Your task to perform on an android device: Show me the alarms in the clock app Image 0: 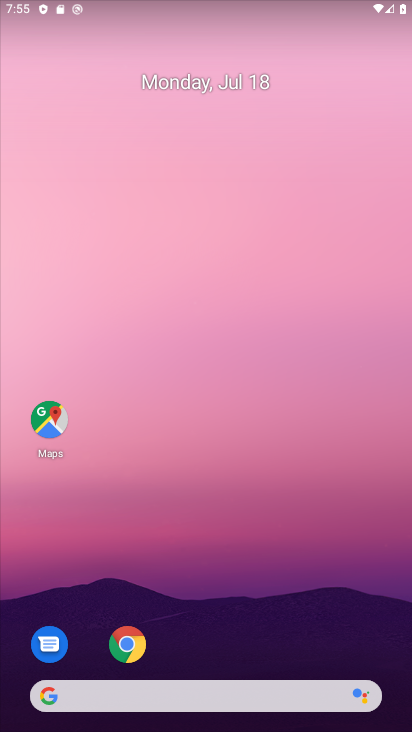
Step 0: drag from (206, 637) to (232, 96)
Your task to perform on an android device: Show me the alarms in the clock app Image 1: 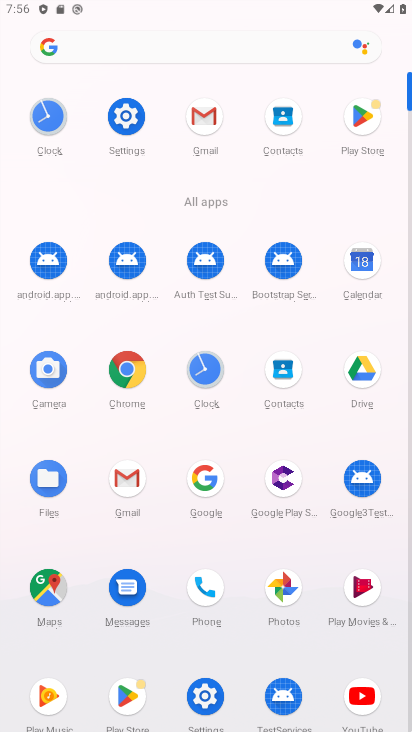
Step 1: click (203, 367)
Your task to perform on an android device: Show me the alarms in the clock app Image 2: 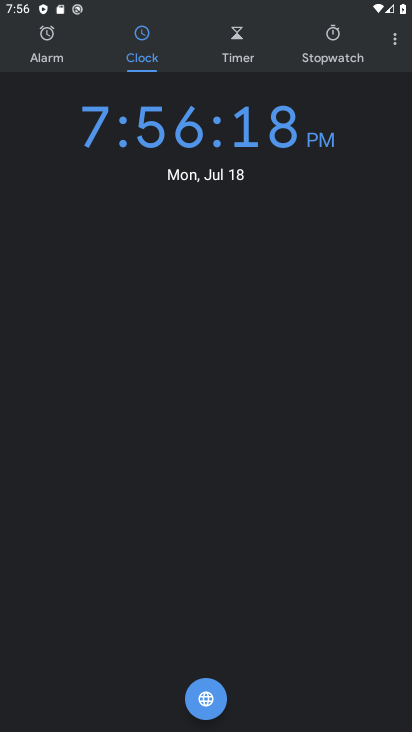
Step 2: click (46, 52)
Your task to perform on an android device: Show me the alarms in the clock app Image 3: 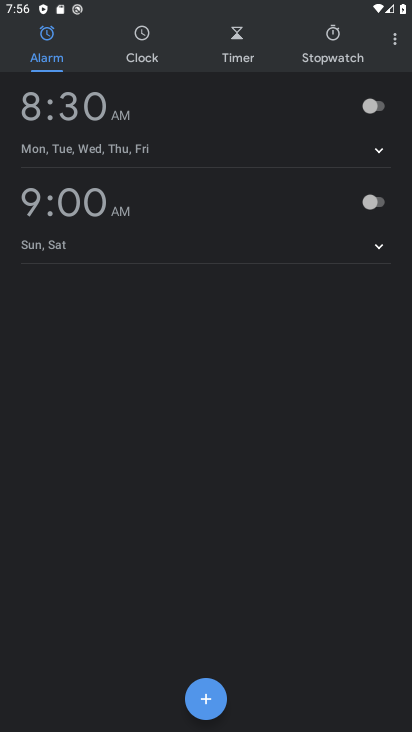
Step 3: click (363, 105)
Your task to perform on an android device: Show me the alarms in the clock app Image 4: 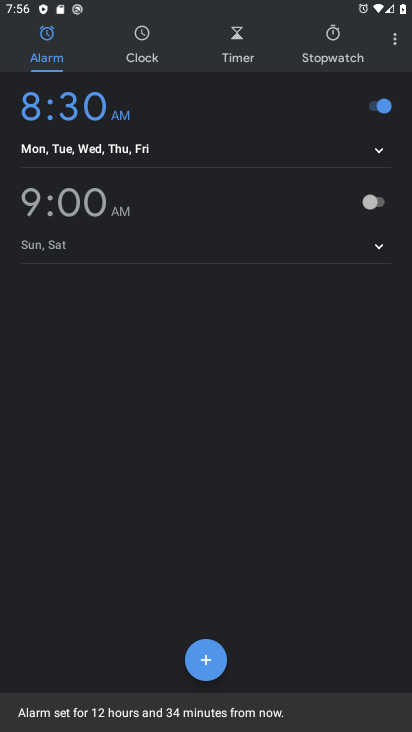
Step 4: task complete